Your task to perform on an android device: Go to notification settings Image 0: 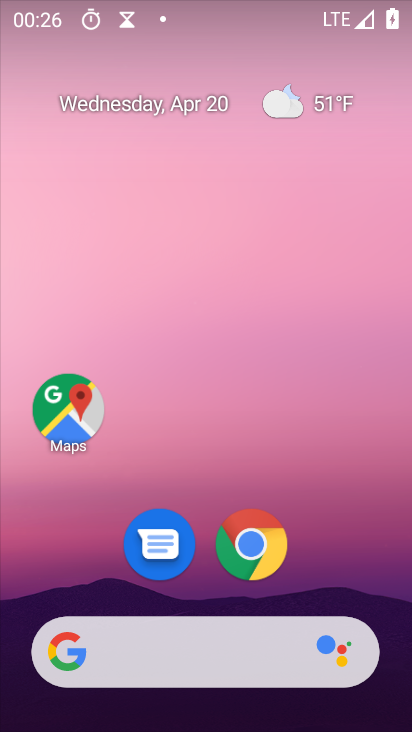
Step 0: drag from (332, 524) to (302, 89)
Your task to perform on an android device: Go to notification settings Image 1: 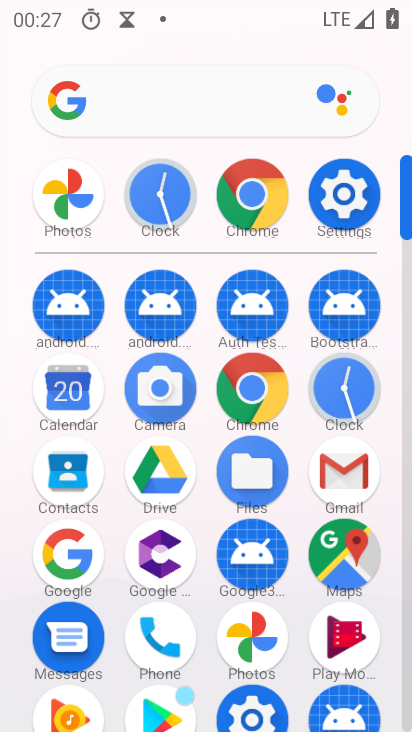
Step 1: click (327, 183)
Your task to perform on an android device: Go to notification settings Image 2: 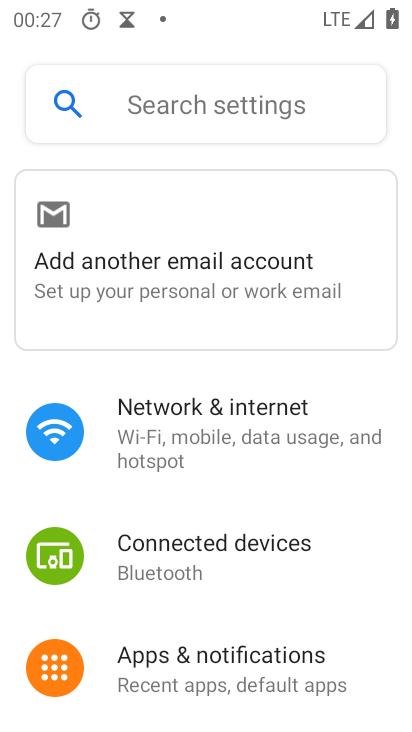
Step 2: drag from (232, 553) to (234, 406)
Your task to perform on an android device: Go to notification settings Image 3: 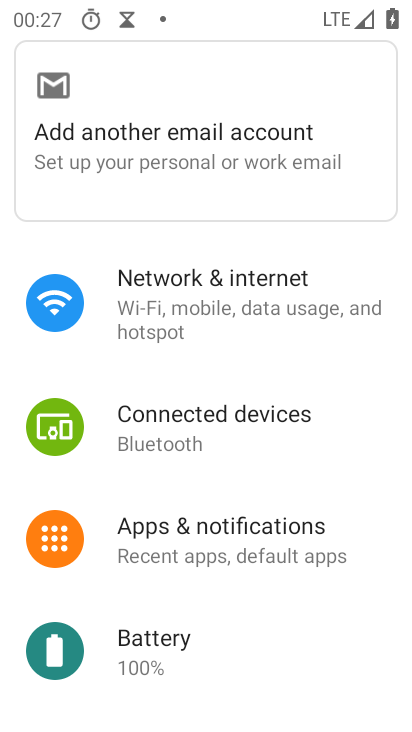
Step 3: drag from (243, 615) to (251, 421)
Your task to perform on an android device: Go to notification settings Image 4: 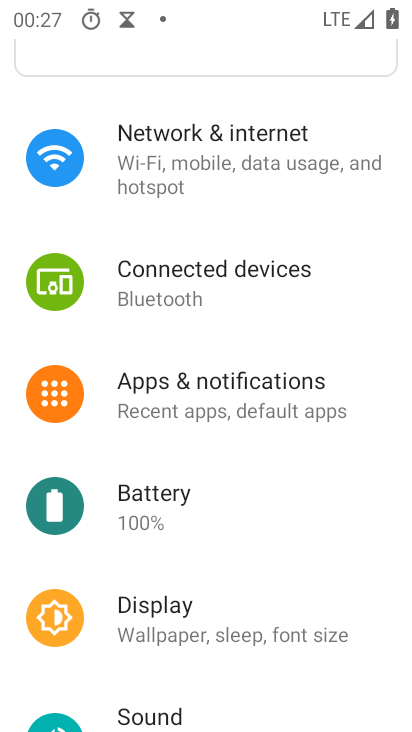
Step 4: drag from (161, 603) to (219, 458)
Your task to perform on an android device: Go to notification settings Image 5: 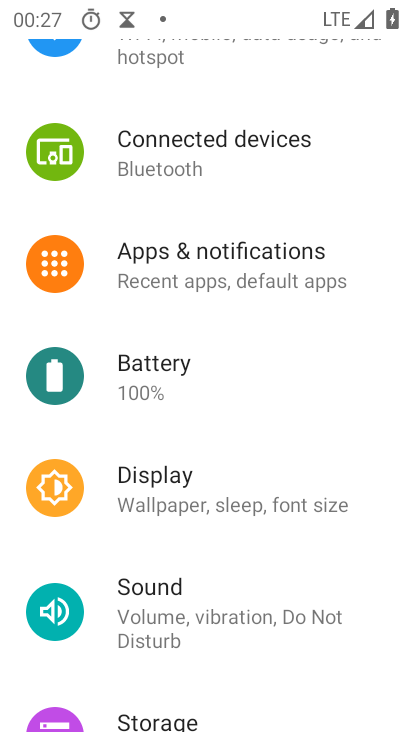
Step 5: drag from (235, 621) to (277, 522)
Your task to perform on an android device: Go to notification settings Image 6: 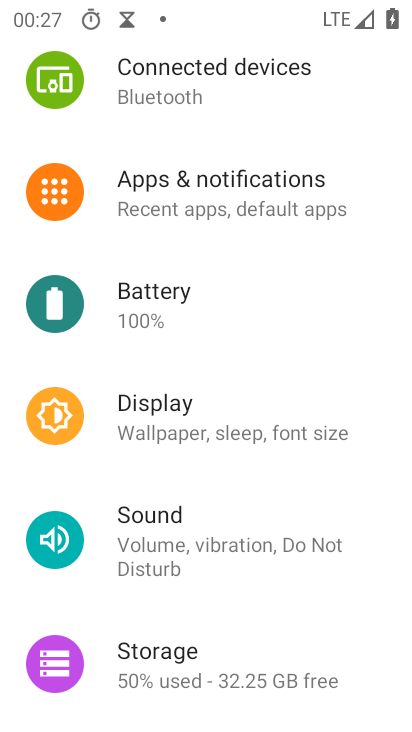
Step 6: click (279, 190)
Your task to perform on an android device: Go to notification settings Image 7: 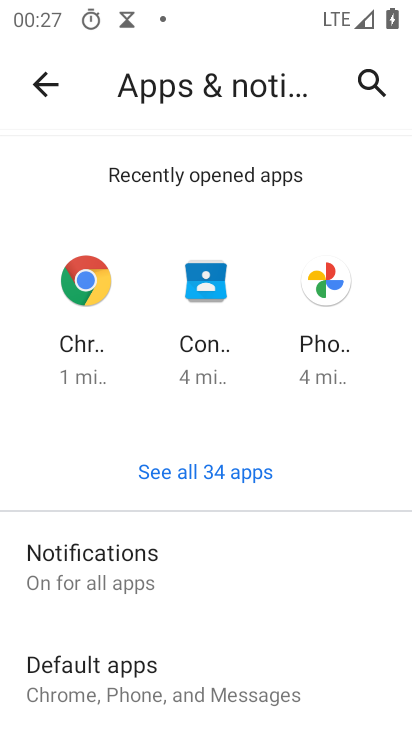
Step 7: click (210, 574)
Your task to perform on an android device: Go to notification settings Image 8: 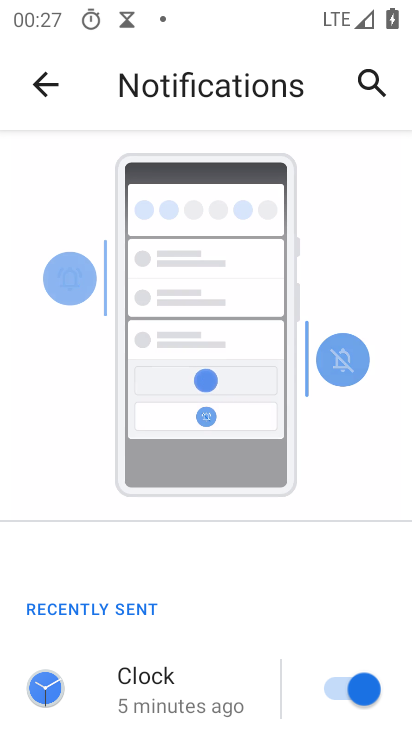
Step 8: task complete